Your task to perform on an android device: View the shopping cart on newegg. Image 0: 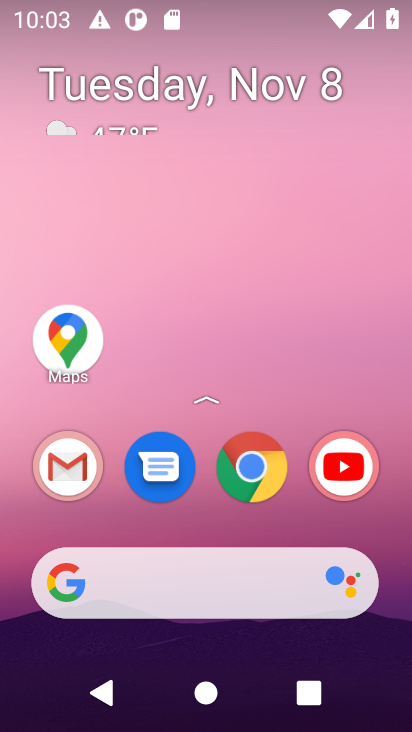
Step 0: click (194, 587)
Your task to perform on an android device: View the shopping cart on newegg. Image 1: 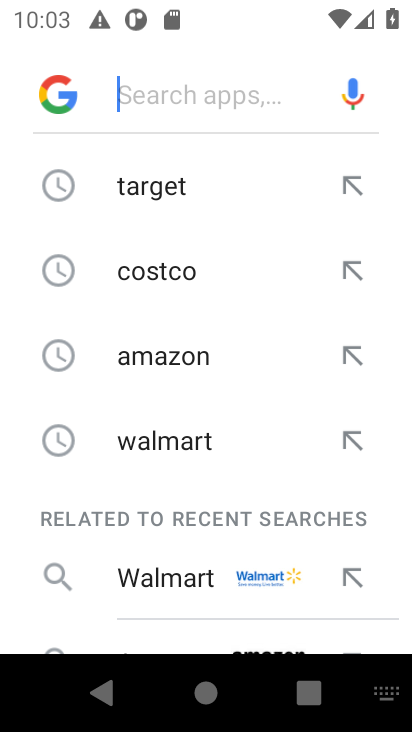
Step 1: type "nwewegg"
Your task to perform on an android device: View the shopping cart on newegg. Image 2: 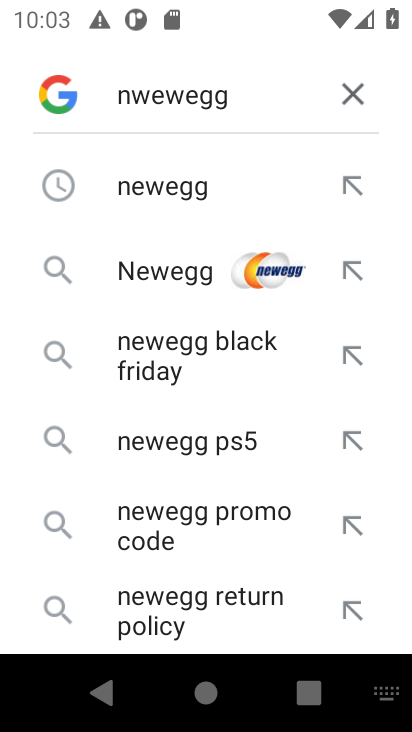
Step 2: click (195, 274)
Your task to perform on an android device: View the shopping cart on newegg. Image 3: 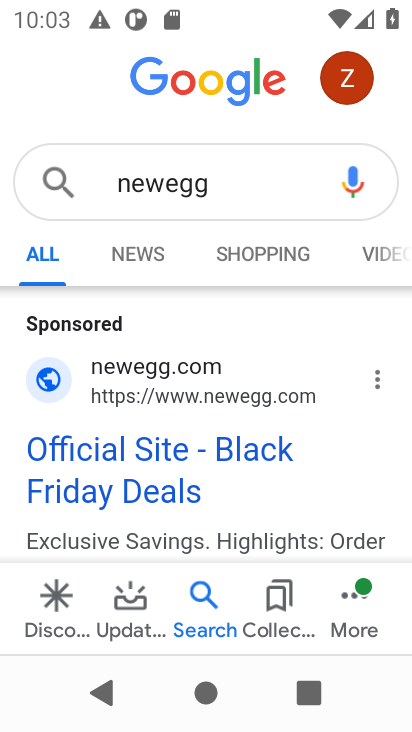
Step 3: click (109, 445)
Your task to perform on an android device: View the shopping cart on newegg. Image 4: 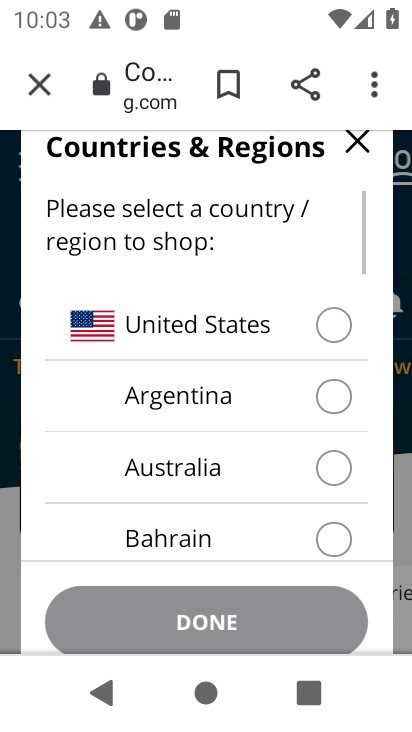
Step 4: task complete